Your task to perform on an android device: toggle improve location accuracy Image 0: 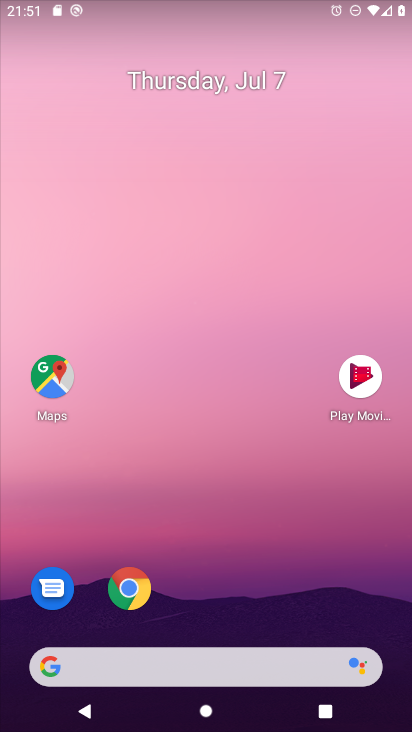
Step 0: drag from (255, 571) to (255, 224)
Your task to perform on an android device: toggle improve location accuracy Image 1: 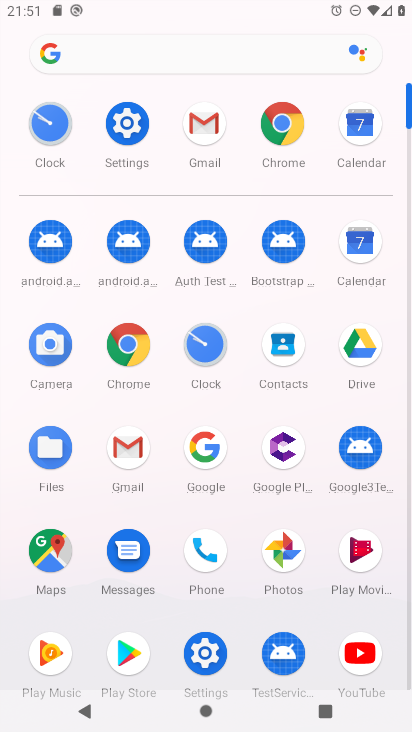
Step 1: click (132, 114)
Your task to perform on an android device: toggle improve location accuracy Image 2: 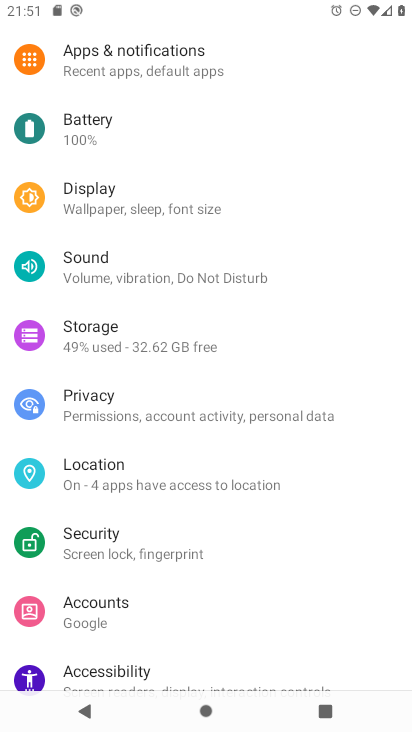
Step 2: click (181, 481)
Your task to perform on an android device: toggle improve location accuracy Image 3: 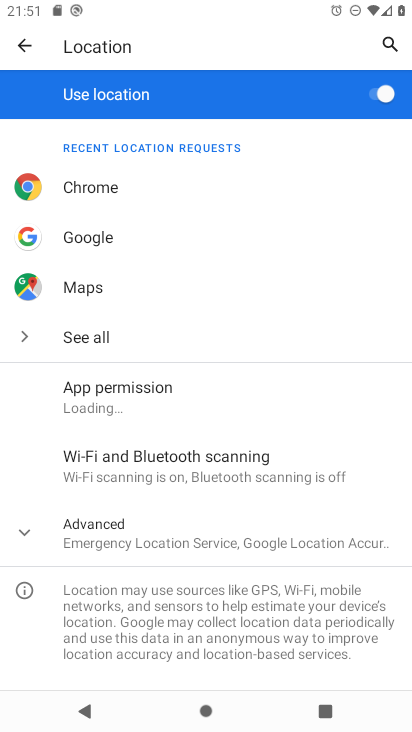
Step 3: click (160, 531)
Your task to perform on an android device: toggle improve location accuracy Image 4: 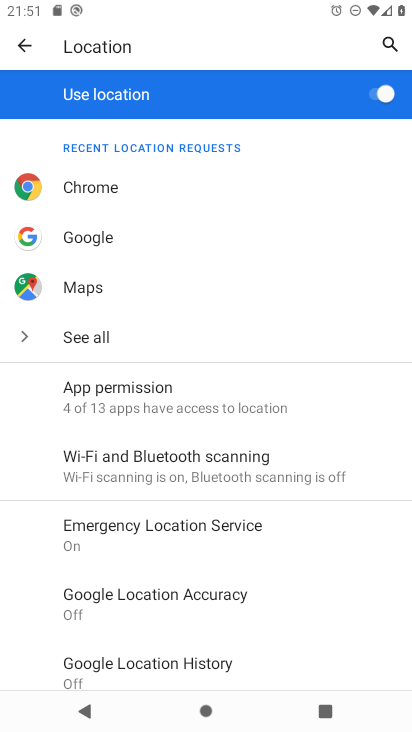
Step 4: click (199, 594)
Your task to perform on an android device: toggle improve location accuracy Image 5: 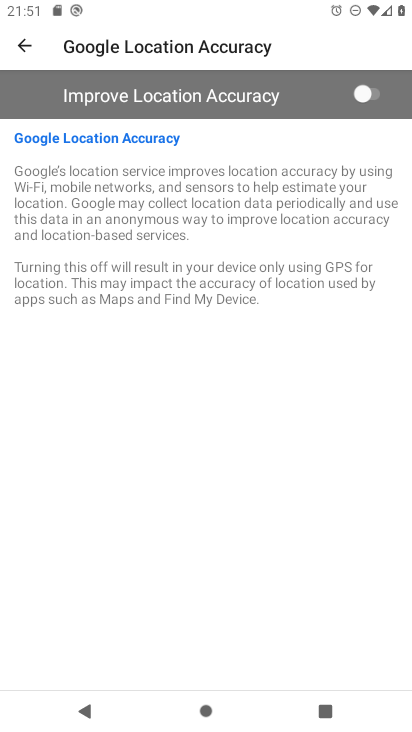
Step 5: click (355, 87)
Your task to perform on an android device: toggle improve location accuracy Image 6: 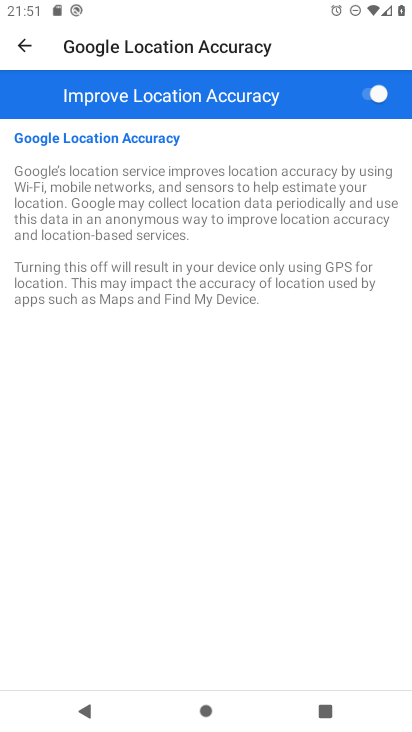
Step 6: task complete